Your task to perform on an android device: What's on my calendar today? Image 0: 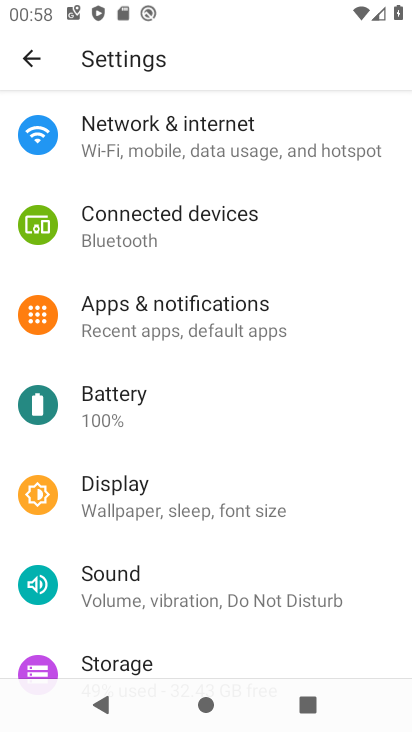
Step 0: press home button
Your task to perform on an android device: What's on my calendar today? Image 1: 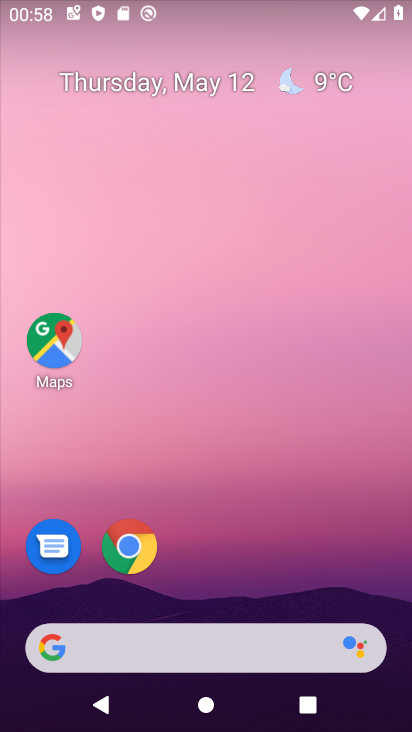
Step 1: drag from (166, 609) to (144, 283)
Your task to perform on an android device: What's on my calendar today? Image 2: 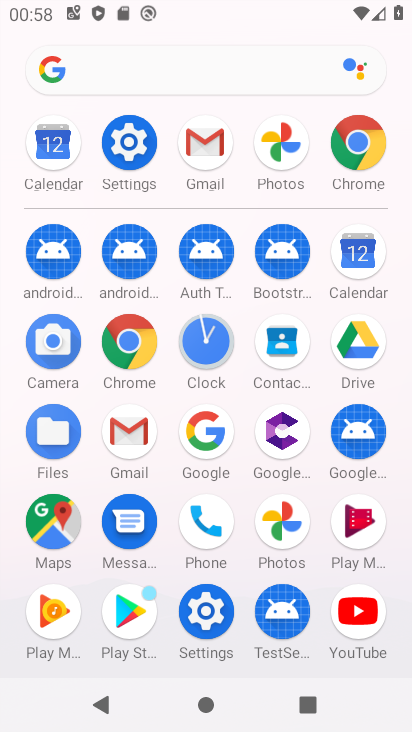
Step 2: click (357, 255)
Your task to perform on an android device: What's on my calendar today? Image 3: 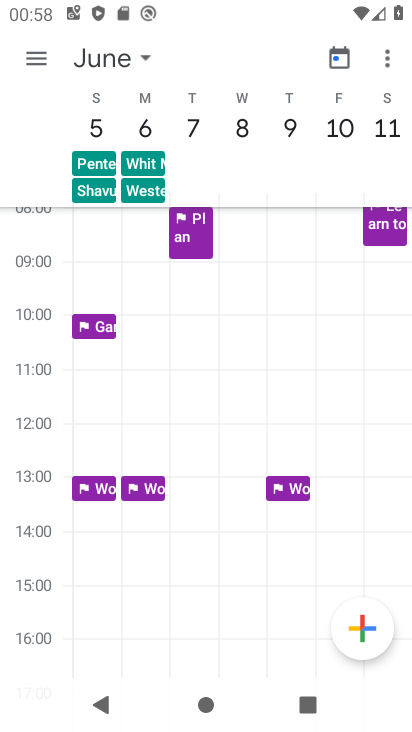
Step 3: click (126, 60)
Your task to perform on an android device: What's on my calendar today? Image 4: 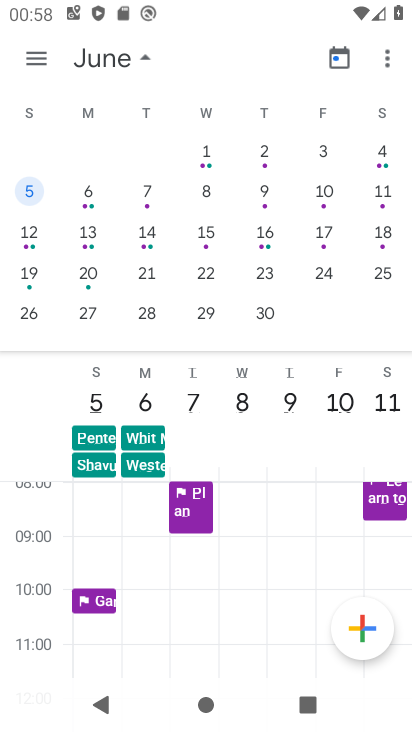
Step 4: drag from (108, 256) to (351, 198)
Your task to perform on an android device: What's on my calendar today? Image 5: 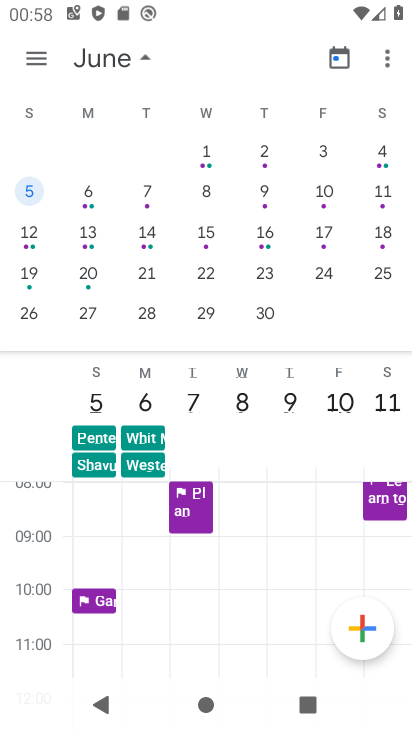
Step 5: drag from (40, 214) to (41, 138)
Your task to perform on an android device: What's on my calendar today? Image 6: 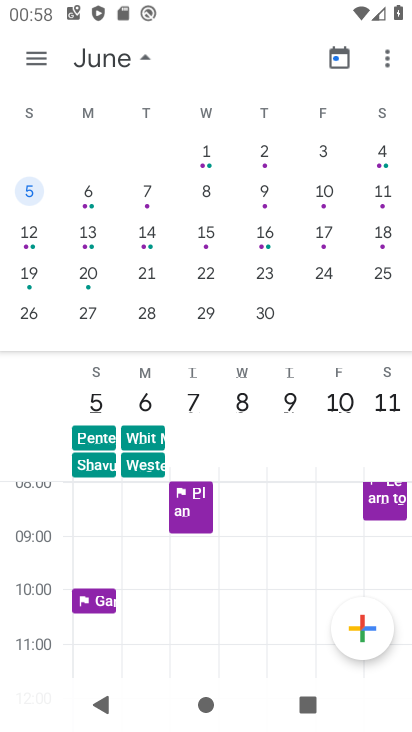
Step 6: drag from (61, 171) to (392, 153)
Your task to perform on an android device: What's on my calendar today? Image 7: 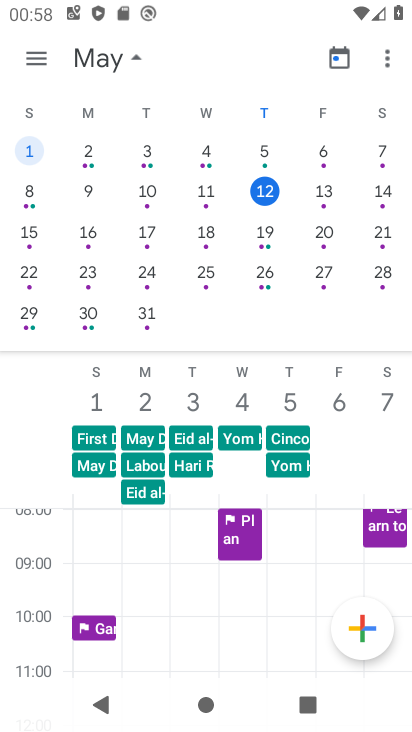
Step 7: click (320, 190)
Your task to perform on an android device: What's on my calendar today? Image 8: 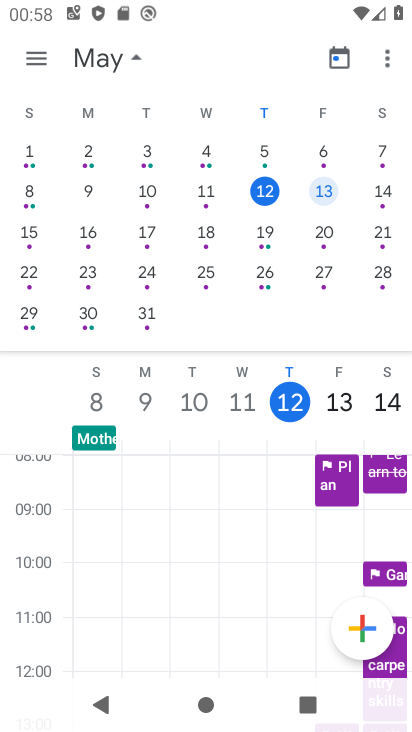
Step 8: task complete